Your task to perform on an android device: Open Google Chrome and click the shortcut for Amazon.com Image 0: 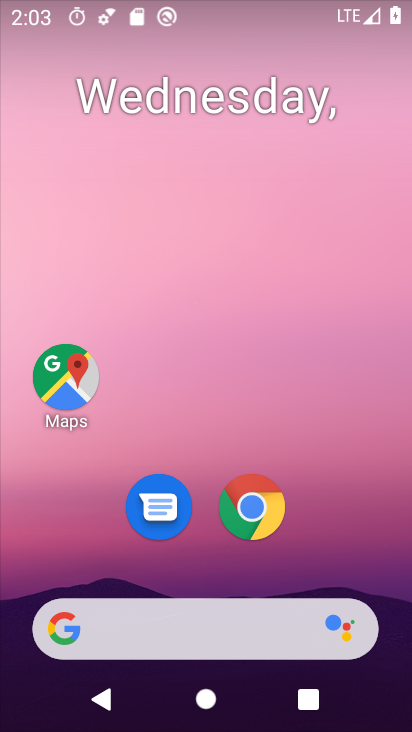
Step 0: click (250, 512)
Your task to perform on an android device: Open Google Chrome and click the shortcut for Amazon.com Image 1: 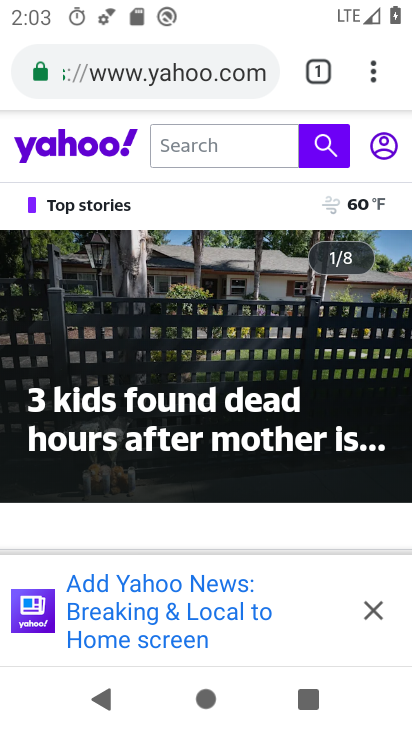
Step 1: click (365, 70)
Your task to perform on an android device: Open Google Chrome and click the shortcut for Amazon.com Image 2: 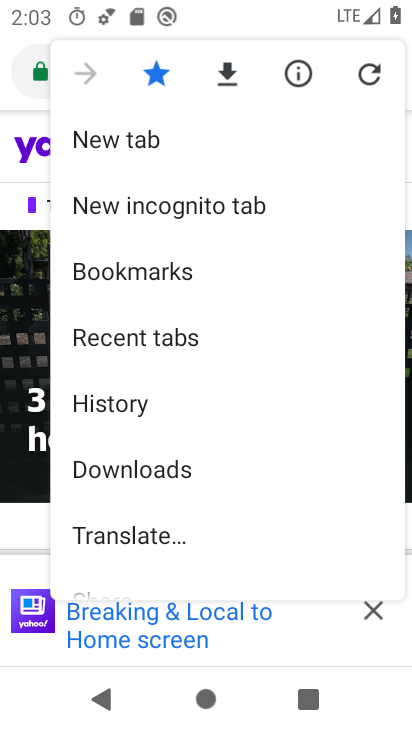
Step 2: click (122, 131)
Your task to perform on an android device: Open Google Chrome and click the shortcut for Amazon.com Image 3: 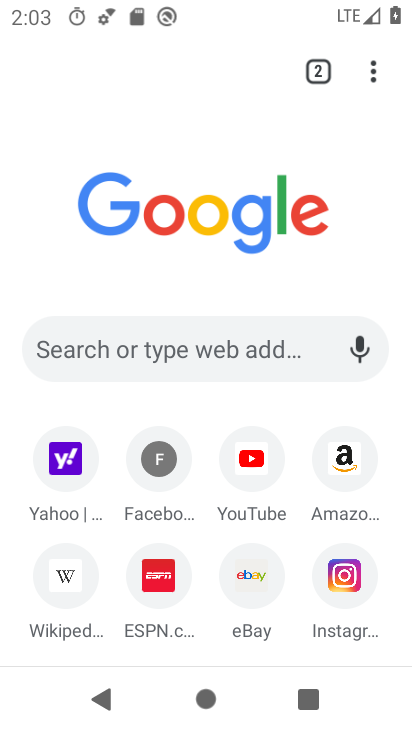
Step 3: click (348, 472)
Your task to perform on an android device: Open Google Chrome and click the shortcut for Amazon.com Image 4: 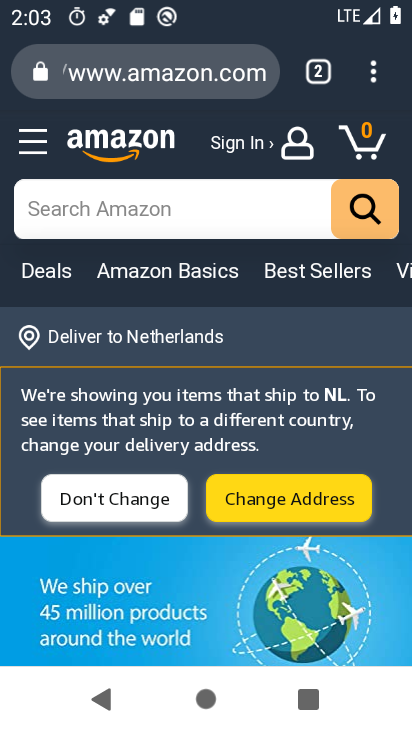
Step 4: task complete